Your task to perform on an android device: What's the weather today? Image 0: 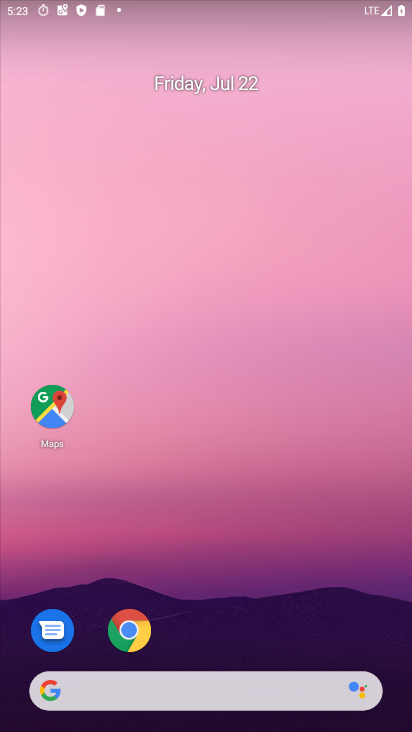
Step 0: click (233, 430)
Your task to perform on an android device: What's the weather today? Image 1: 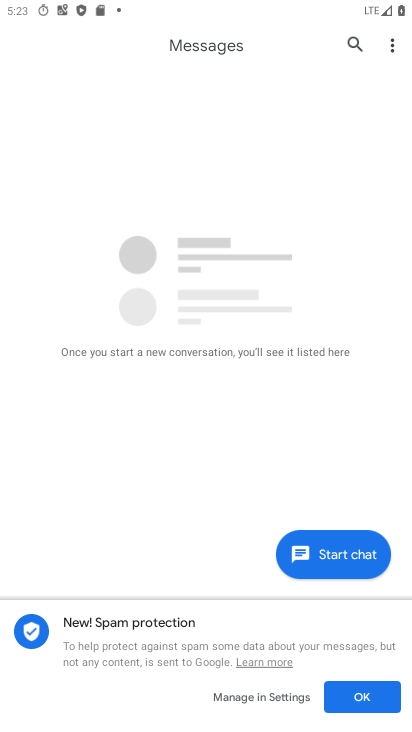
Step 1: press home button
Your task to perform on an android device: What's the weather today? Image 2: 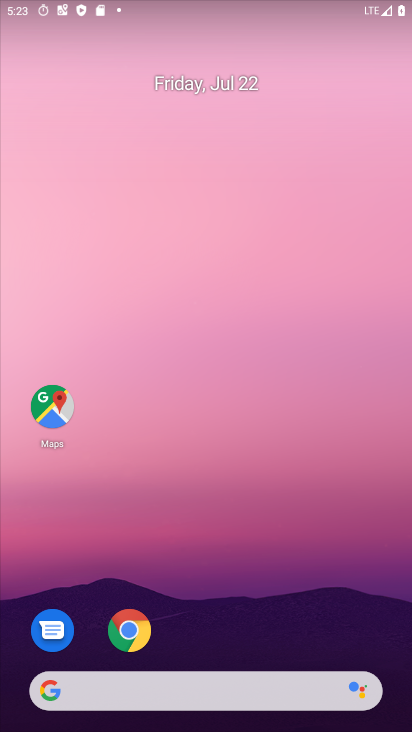
Step 2: drag from (198, 662) to (216, 80)
Your task to perform on an android device: What's the weather today? Image 3: 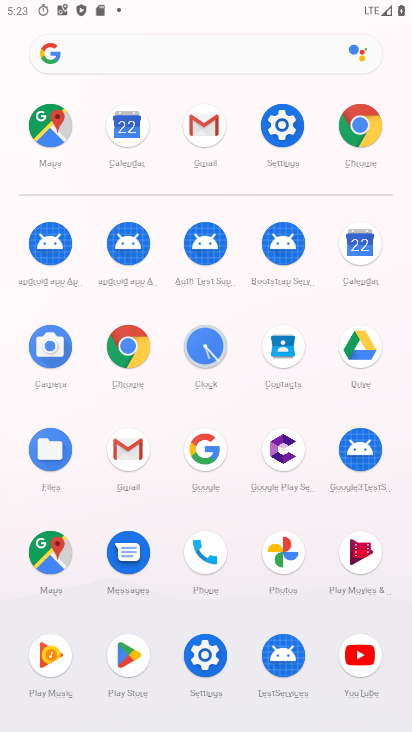
Step 3: click (129, 349)
Your task to perform on an android device: What's the weather today? Image 4: 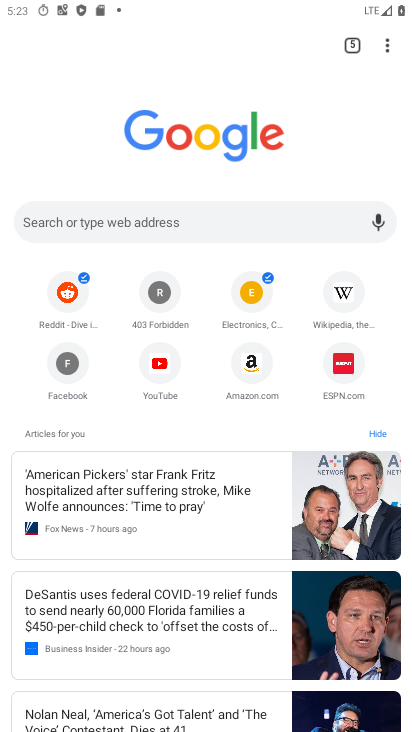
Step 4: click (245, 209)
Your task to perform on an android device: What's the weather today? Image 5: 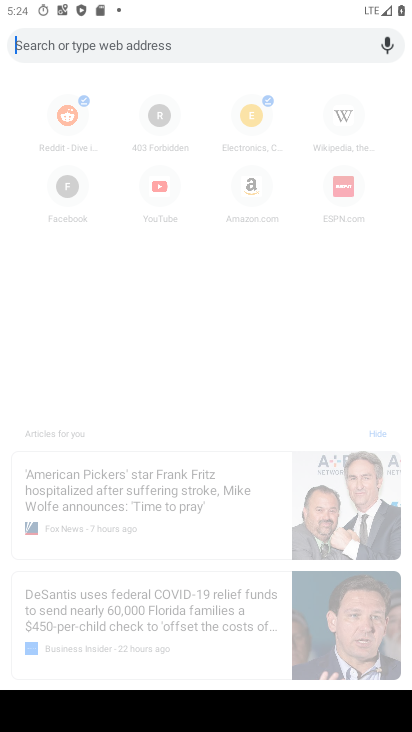
Step 5: type "whats the weather today"
Your task to perform on an android device: What's the weather today? Image 6: 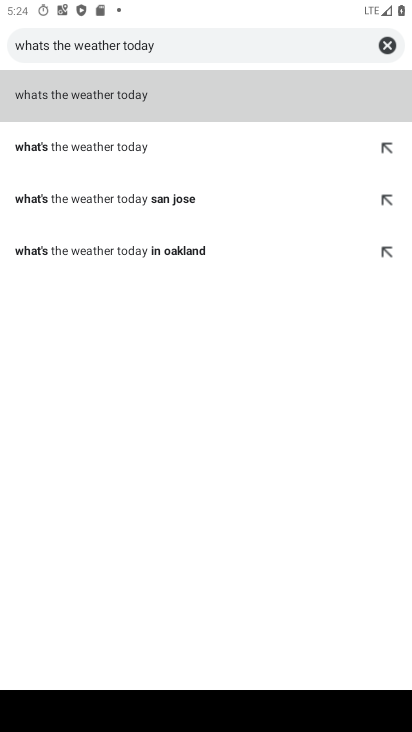
Step 6: click (140, 92)
Your task to perform on an android device: What's the weather today? Image 7: 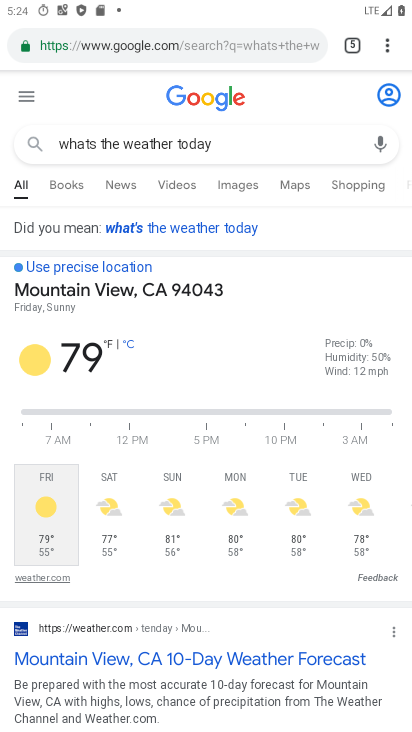
Step 7: task complete